Your task to perform on an android device: Open Google Image 0: 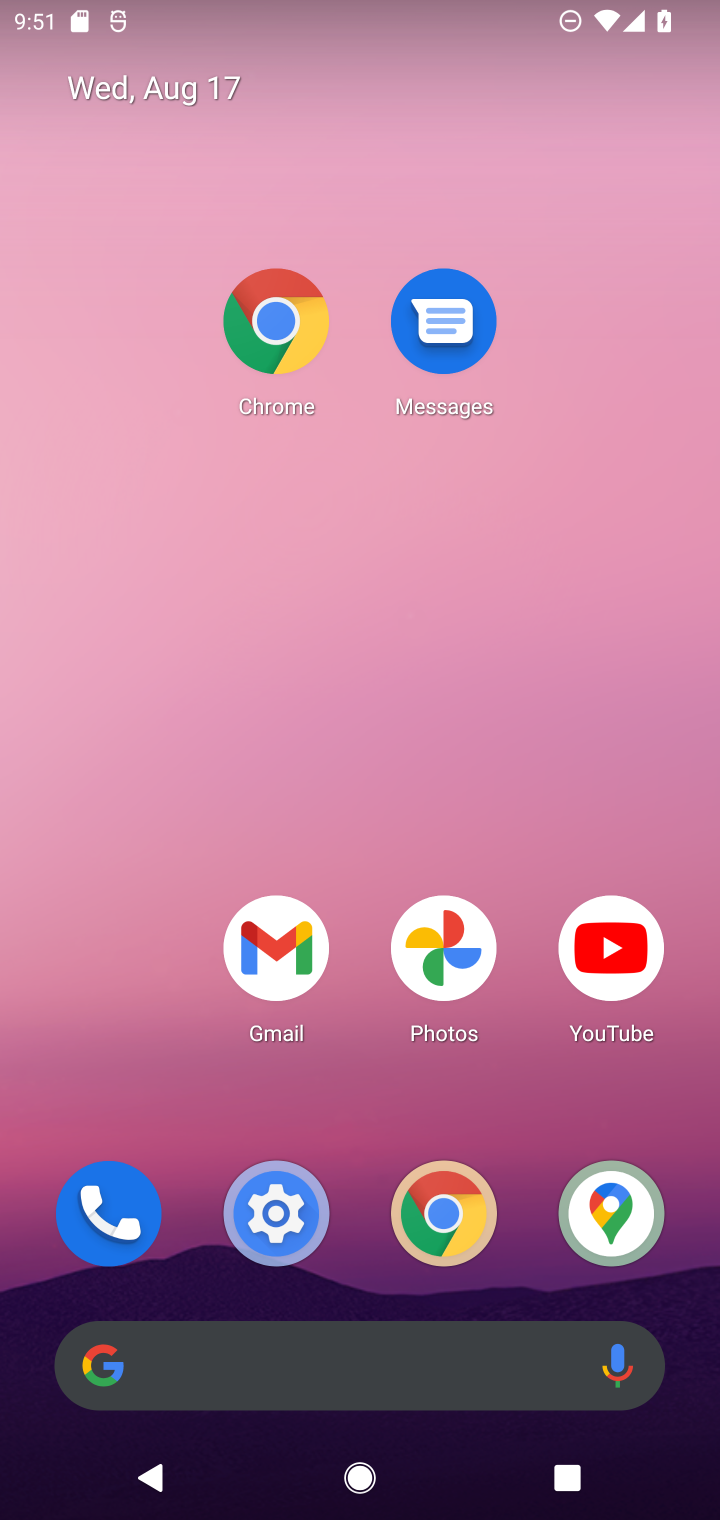
Step 0: click (456, 1263)
Your task to perform on an android device: Open Google Image 1: 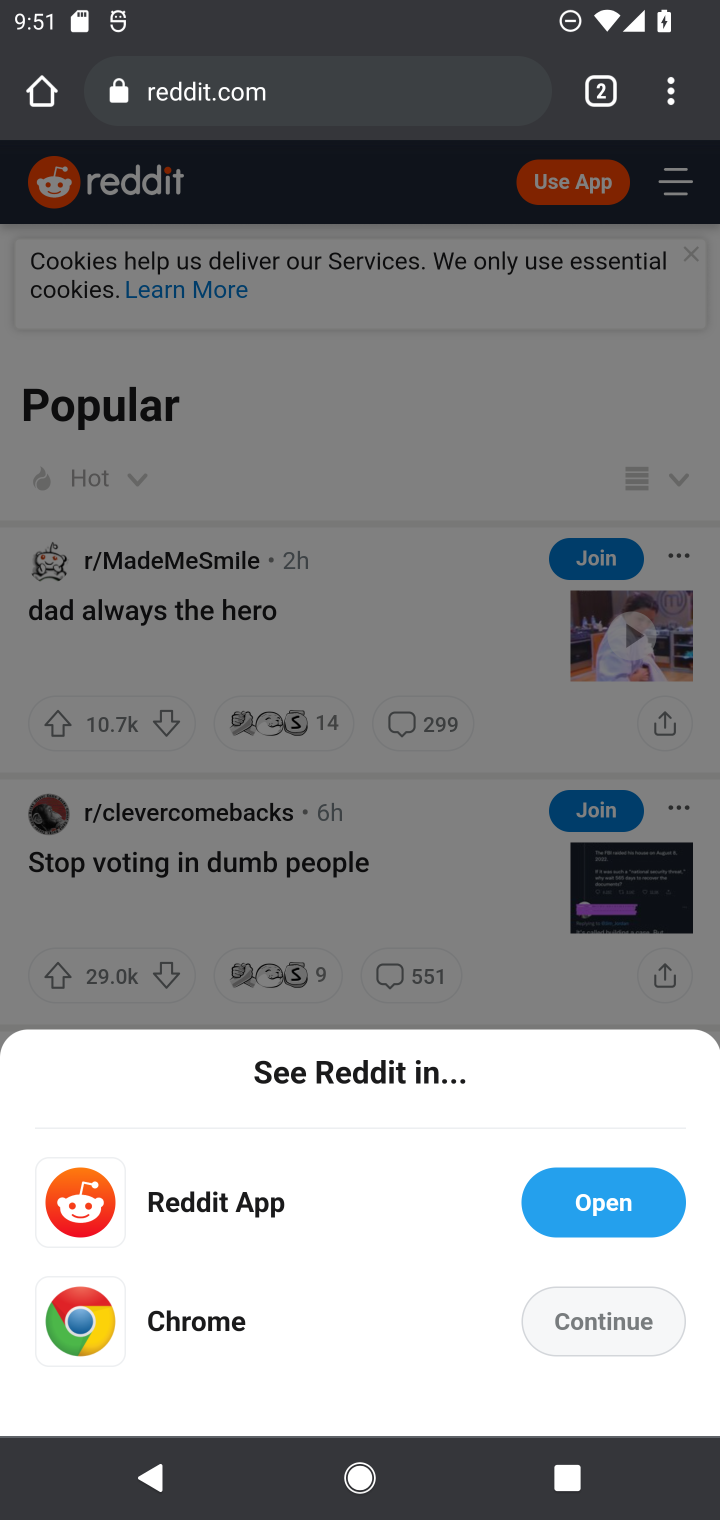
Step 1: click (193, 1293)
Your task to perform on an android device: Open Google Image 2: 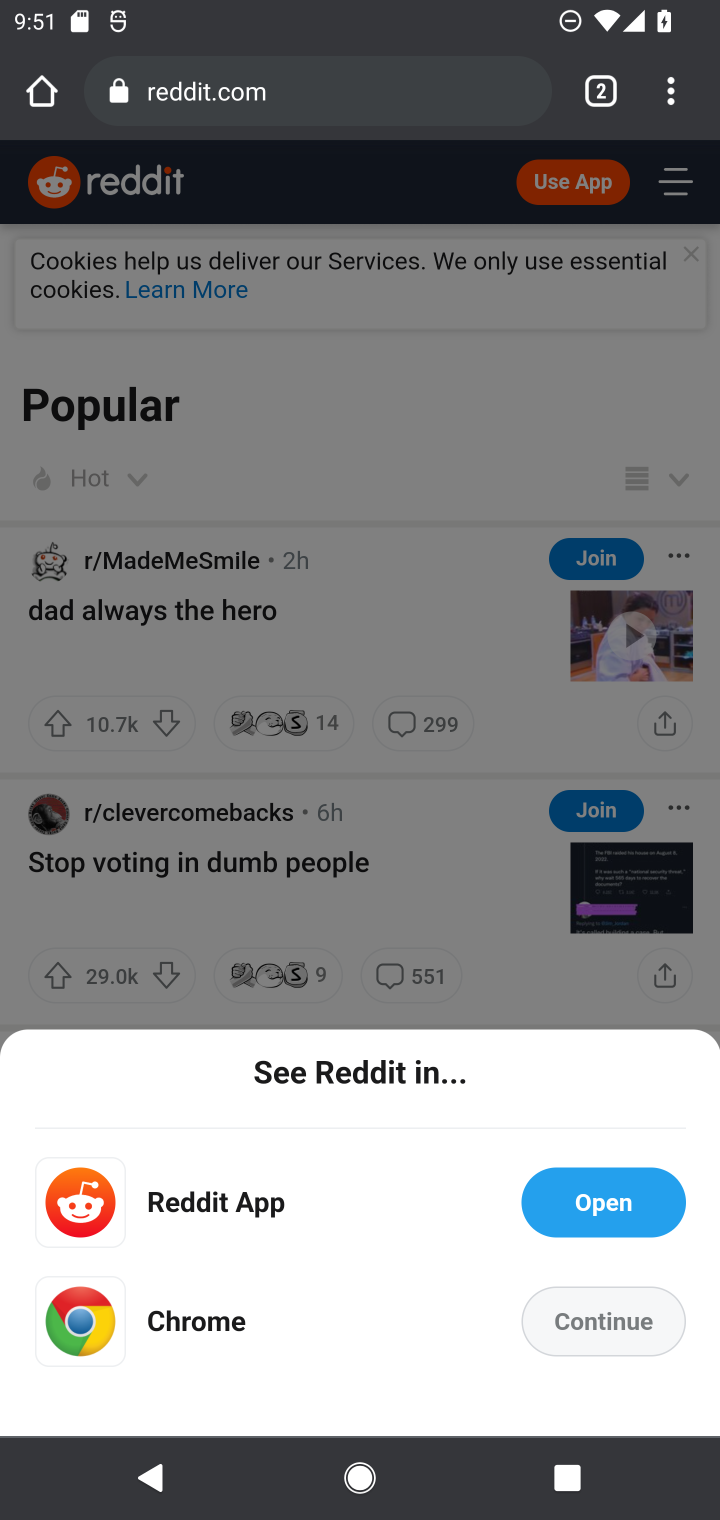
Step 2: click (188, 1328)
Your task to perform on an android device: Open Google Image 3: 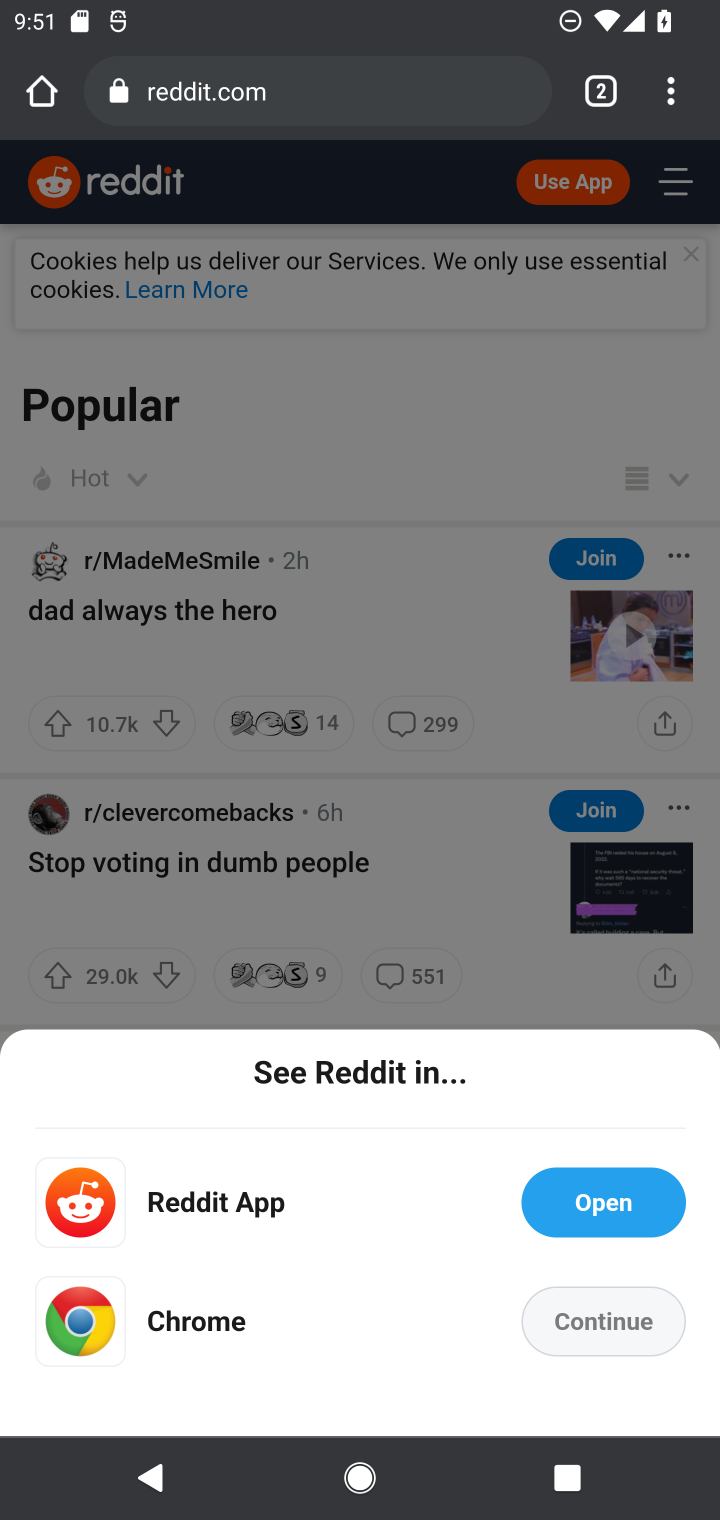
Step 3: click (533, 1303)
Your task to perform on an android device: Open Google Image 4: 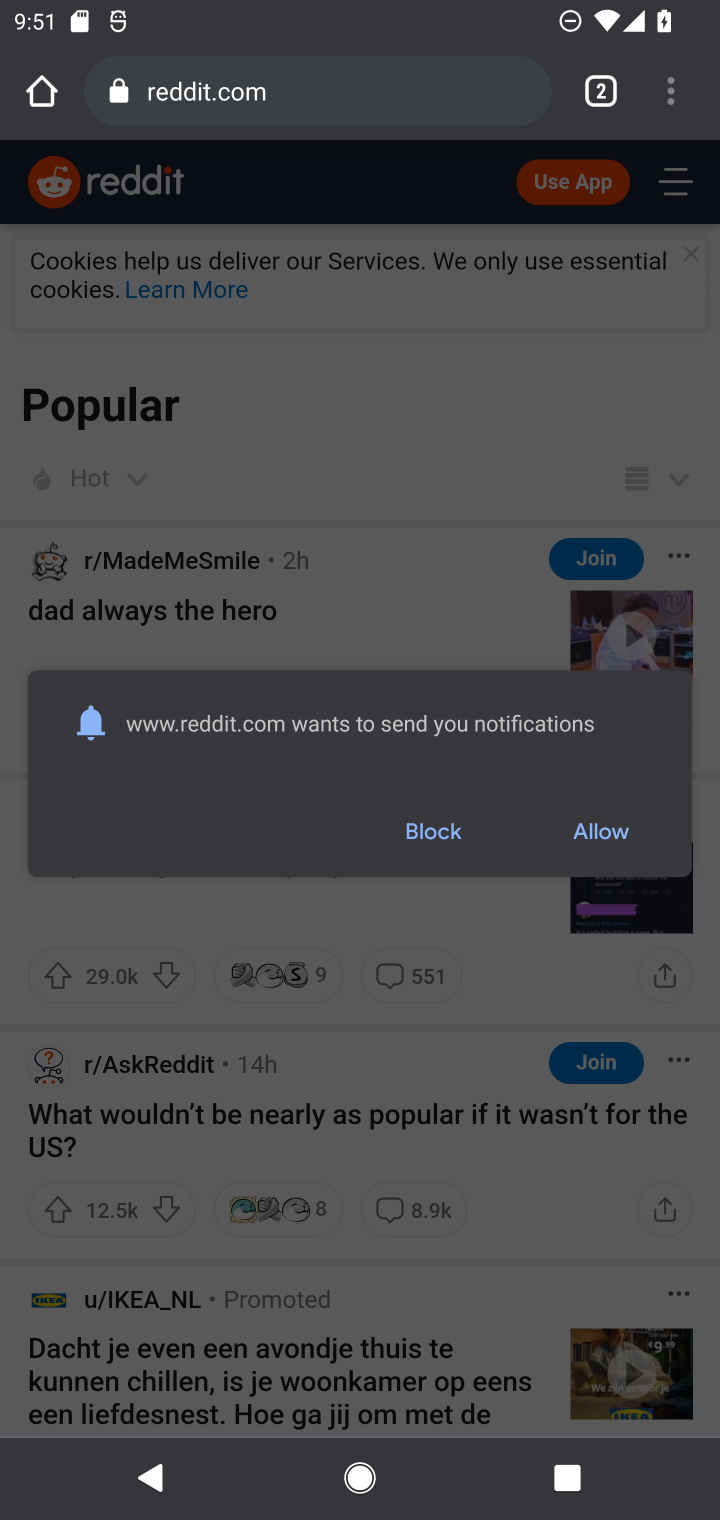
Step 4: click (484, 830)
Your task to perform on an android device: Open Google Image 5: 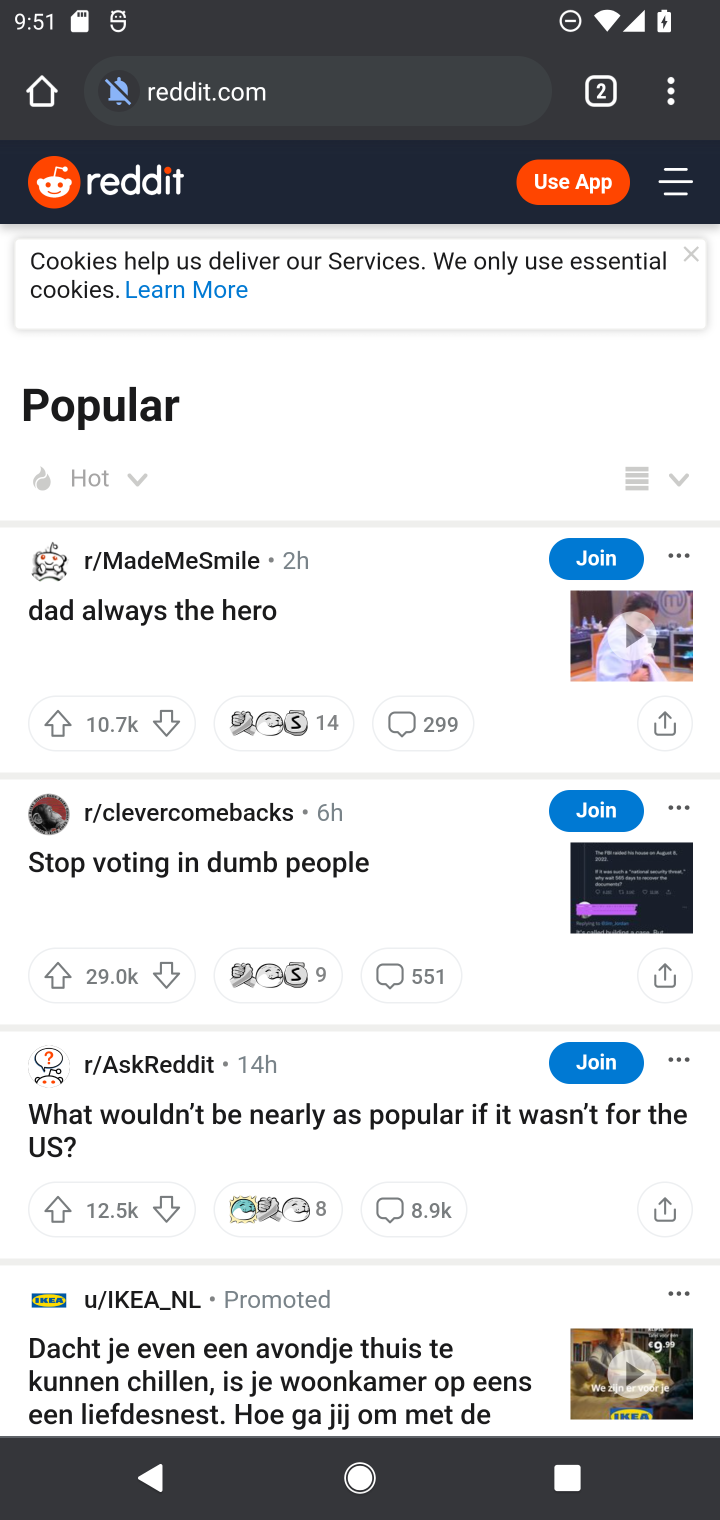
Step 5: click (365, 86)
Your task to perform on an android device: Open Google Image 6: 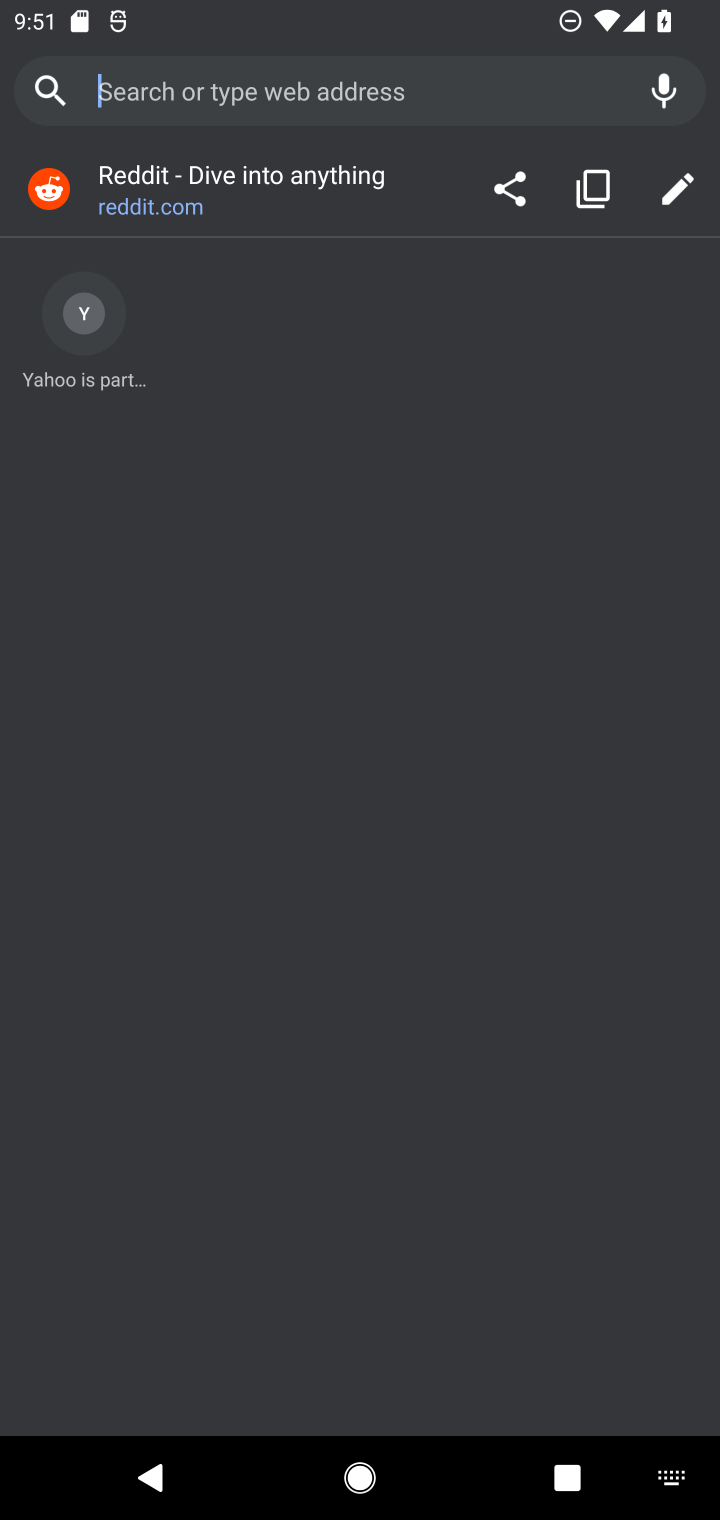
Step 6: type "google.com"
Your task to perform on an android device: Open Google Image 7: 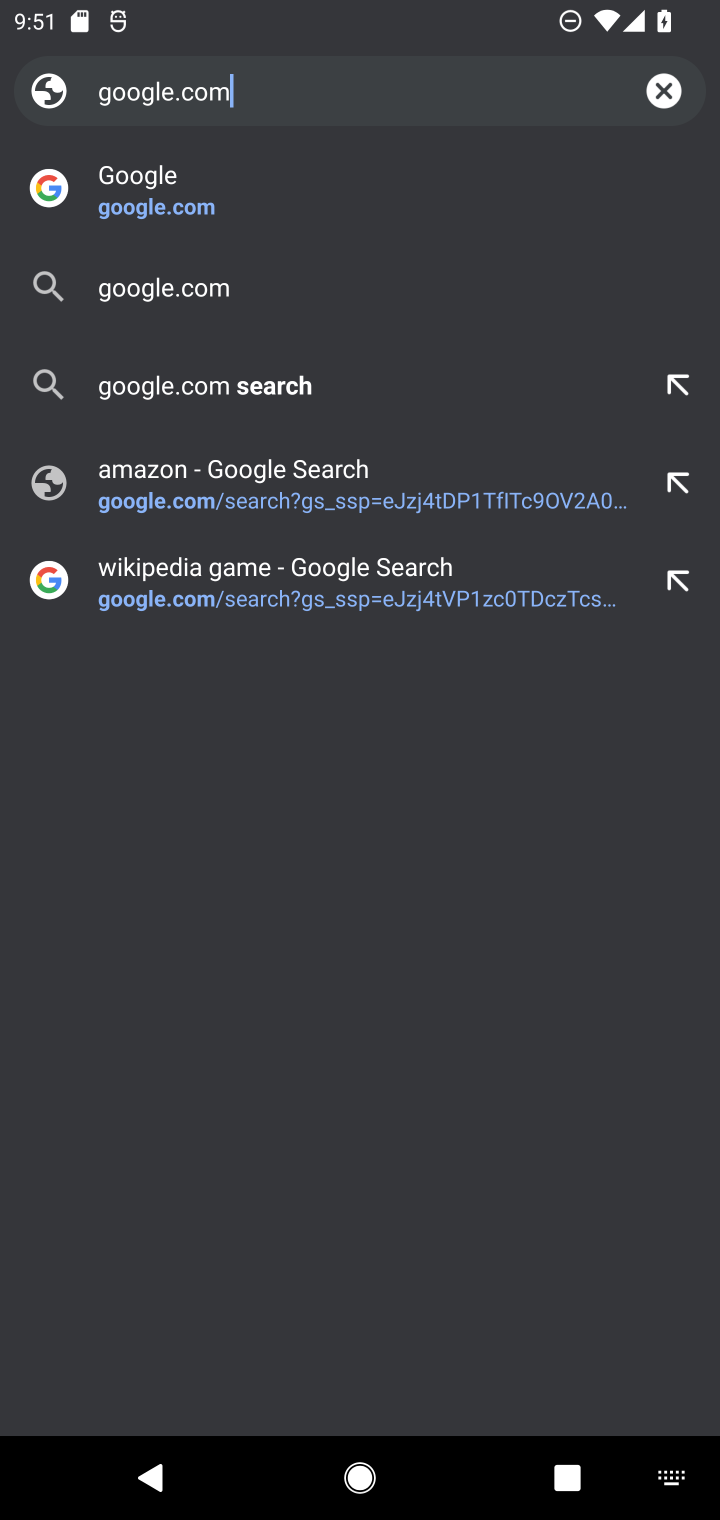
Step 7: click (251, 174)
Your task to perform on an android device: Open Google Image 8: 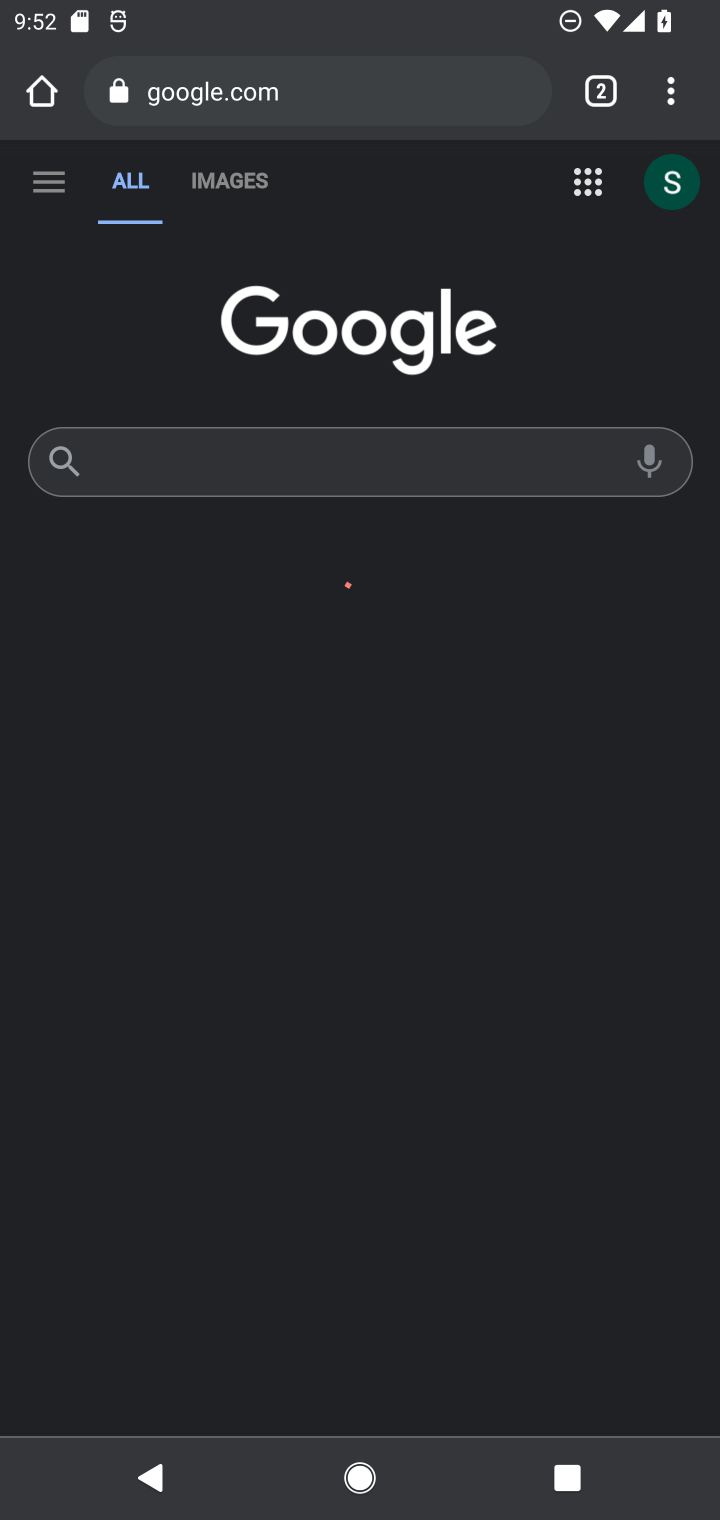
Step 8: task complete